Your task to perform on an android device: turn off sleep mode Image 0: 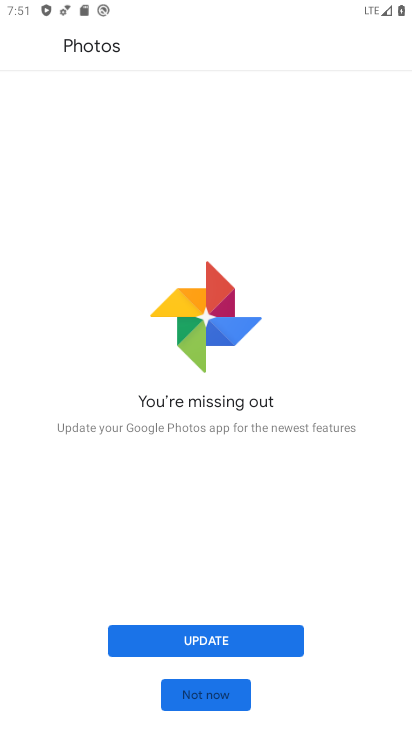
Step 0: press home button
Your task to perform on an android device: turn off sleep mode Image 1: 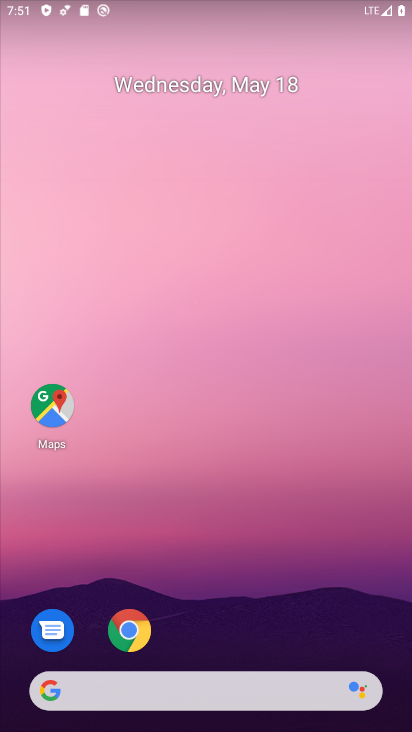
Step 1: drag from (199, 615) to (52, 7)
Your task to perform on an android device: turn off sleep mode Image 2: 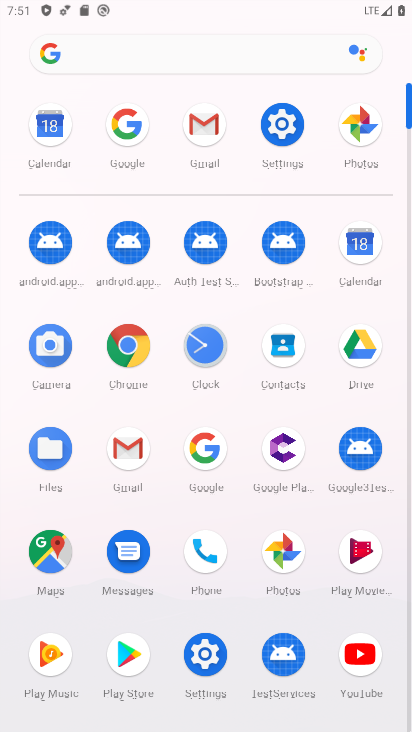
Step 2: click (282, 126)
Your task to perform on an android device: turn off sleep mode Image 3: 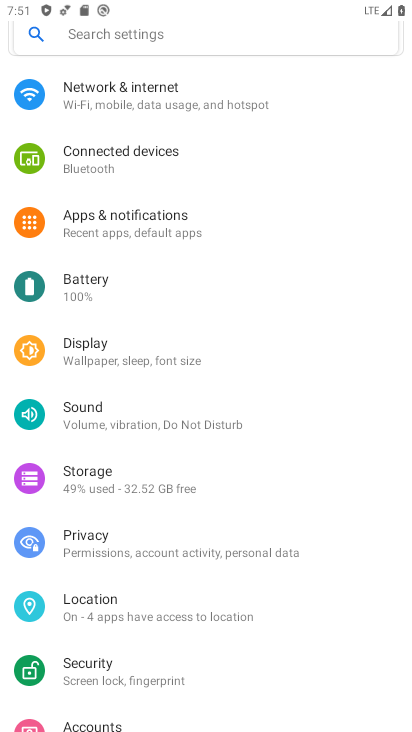
Step 3: click (98, 347)
Your task to perform on an android device: turn off sleep mode Image 4: 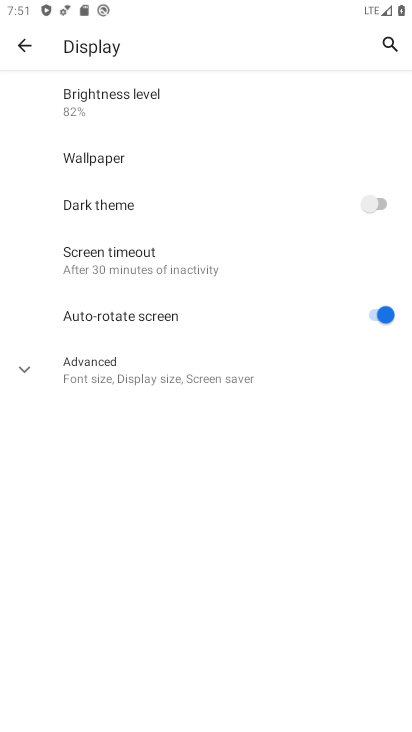
Step 4: task complete